Your task to perform on an android device: turn on airplane mode Image 0: 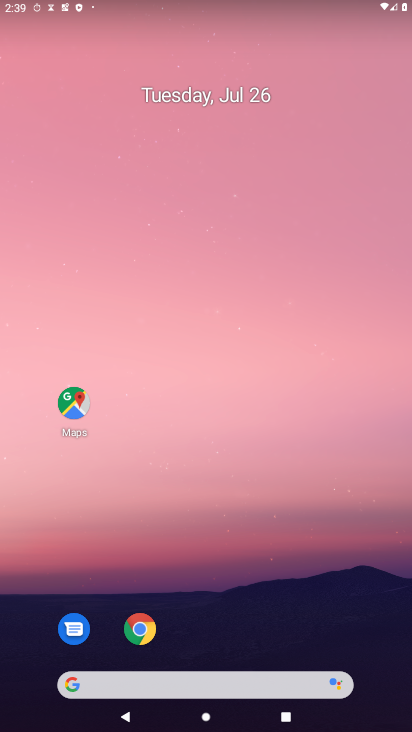
Step 0: drag from (292, 687) to (294, 43)
Your task to perform on an android device: turn on airplane mode Image 1: 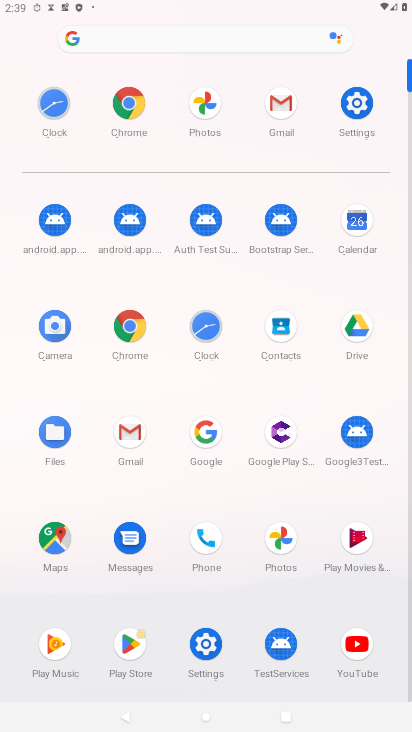
Step 1: click (361, 106)
Your task to perform on an android device: turn on airplane mode Image 2: 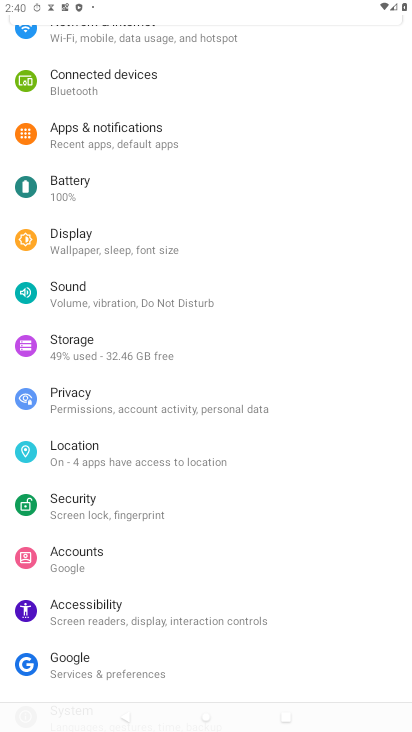
Step 2: drag from (175, 133) to (150, 647)
Your task to perform on an android device: turn on airplane mode Image 3: 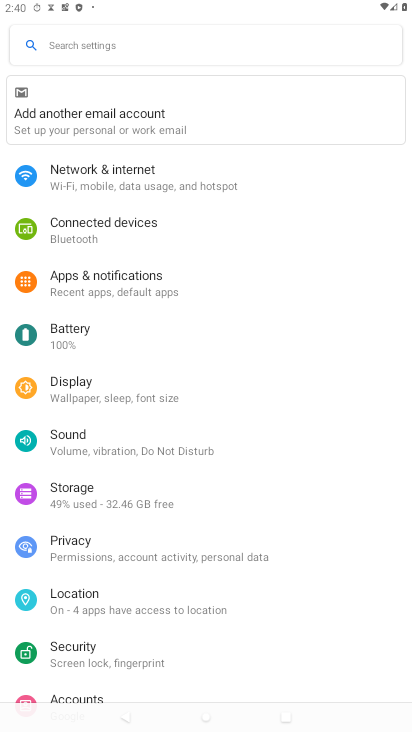
Step 3: click (186, 174)
Your task to perform on an android device: turn on airplane mode Image 4: 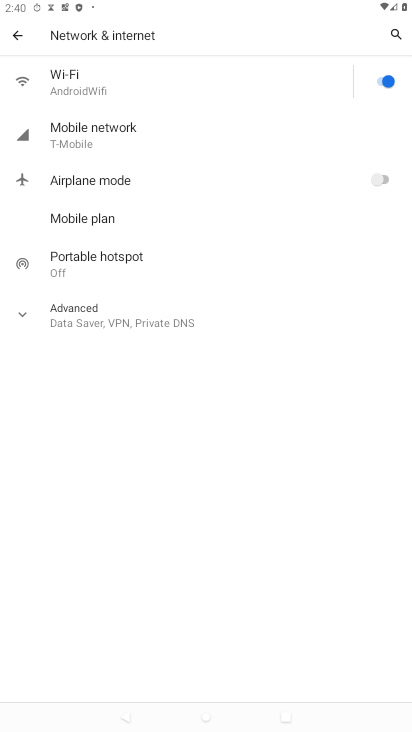
Step 4: click (117, 185)
Your task to perform on an android device: turn on airplane mode Image 5: 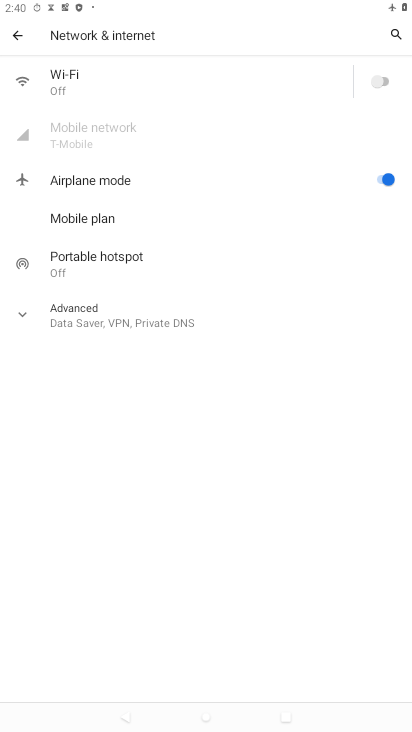
Step 5: task complete